Your task to perform on an android device: set an alarm Image 0: 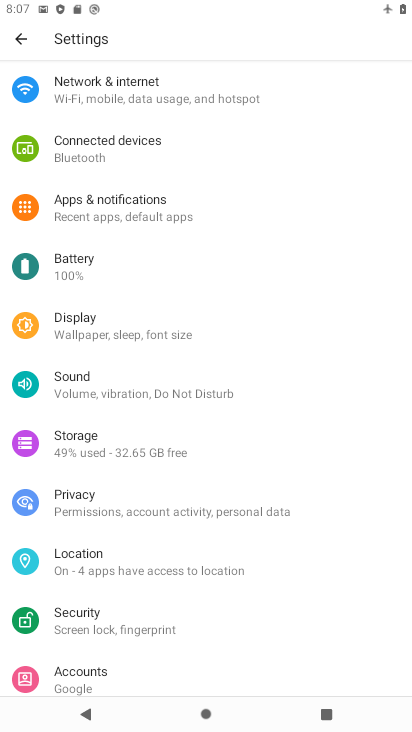
Step 0: press home button
Your task to perform on an android device: set an alarm Image 1: 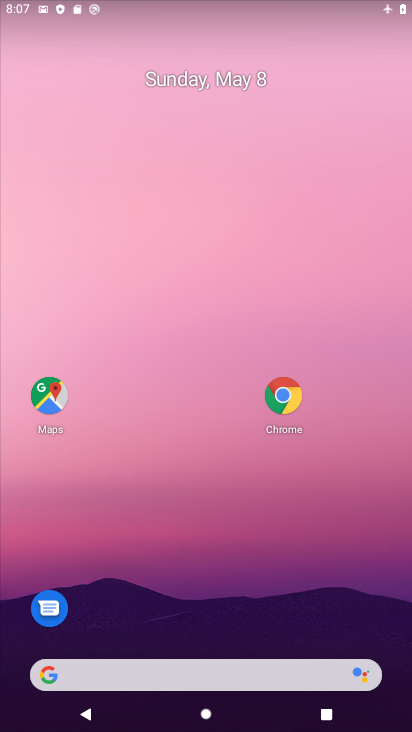
Step 1: drag from (196, 676) to (355, 233)
Your task to perform on an android device: set an alarm Image 2: 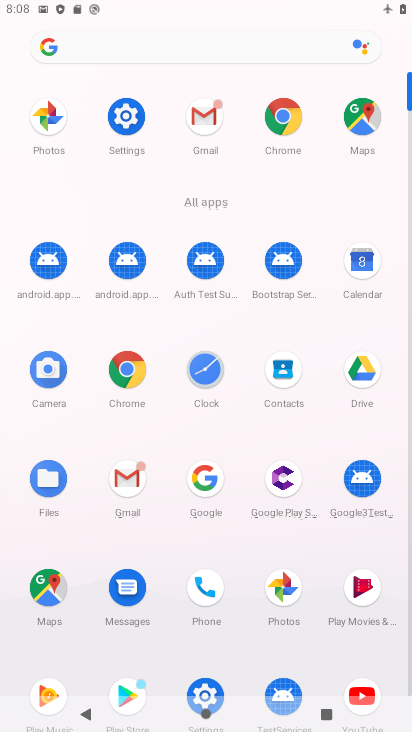
Step 2: click (208, 368)
Your task to perform on an android device: set an alarm Image 3: 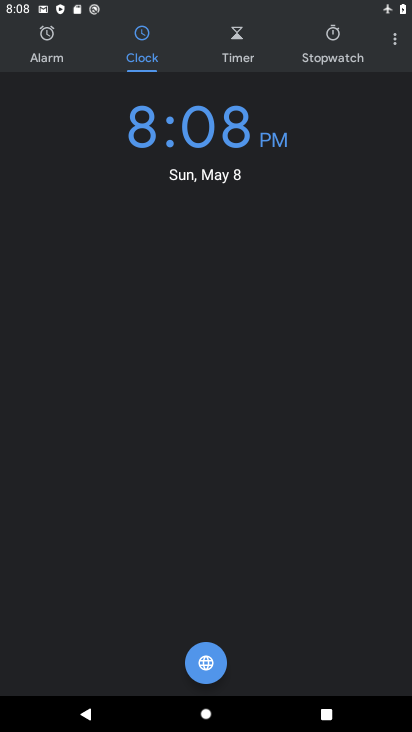
Step 3: click (60, 53)
Your task to perform on an android device: set an alarm Image 4: 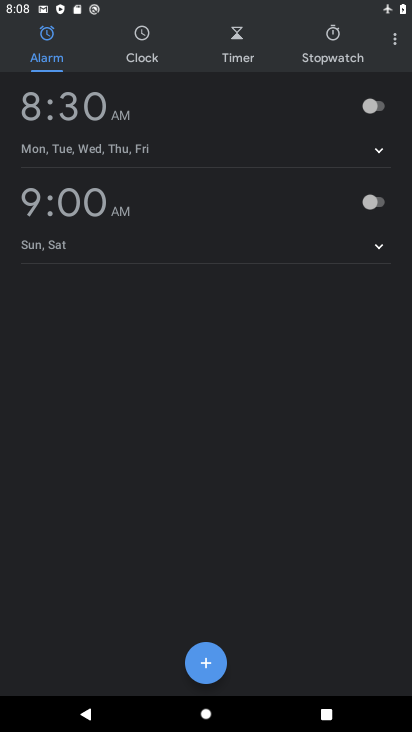
Step 4: click (108, 116)
Your task to perform on an android device: set an alarm Image 5: 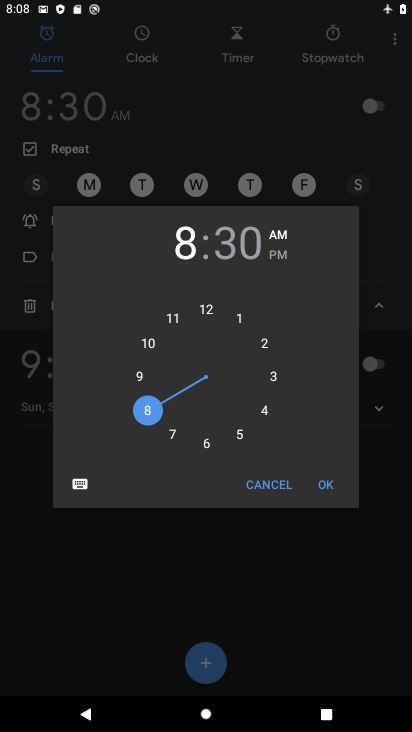
Step 5: click (181, 317)
Your task to perform on an android device: set an alarm Image 6: 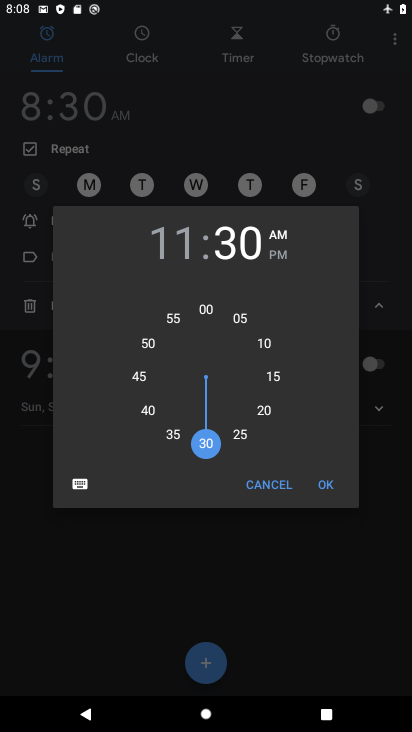
Step 6: click (325, 489)
Your task to perform on an android device: set an alarm Image 7: 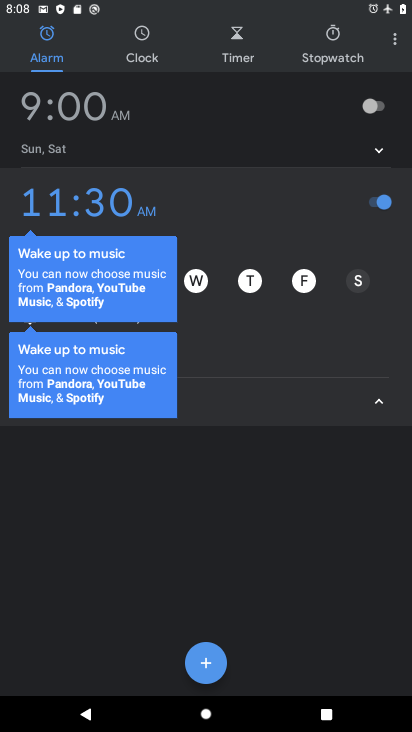
Step 7: task complete